Your task to perform on an android device: Clear all items from cart on target.com. Search for apple airpods pro on target.com, select the first entry, add it to the cart, then select checkout. Image 0: 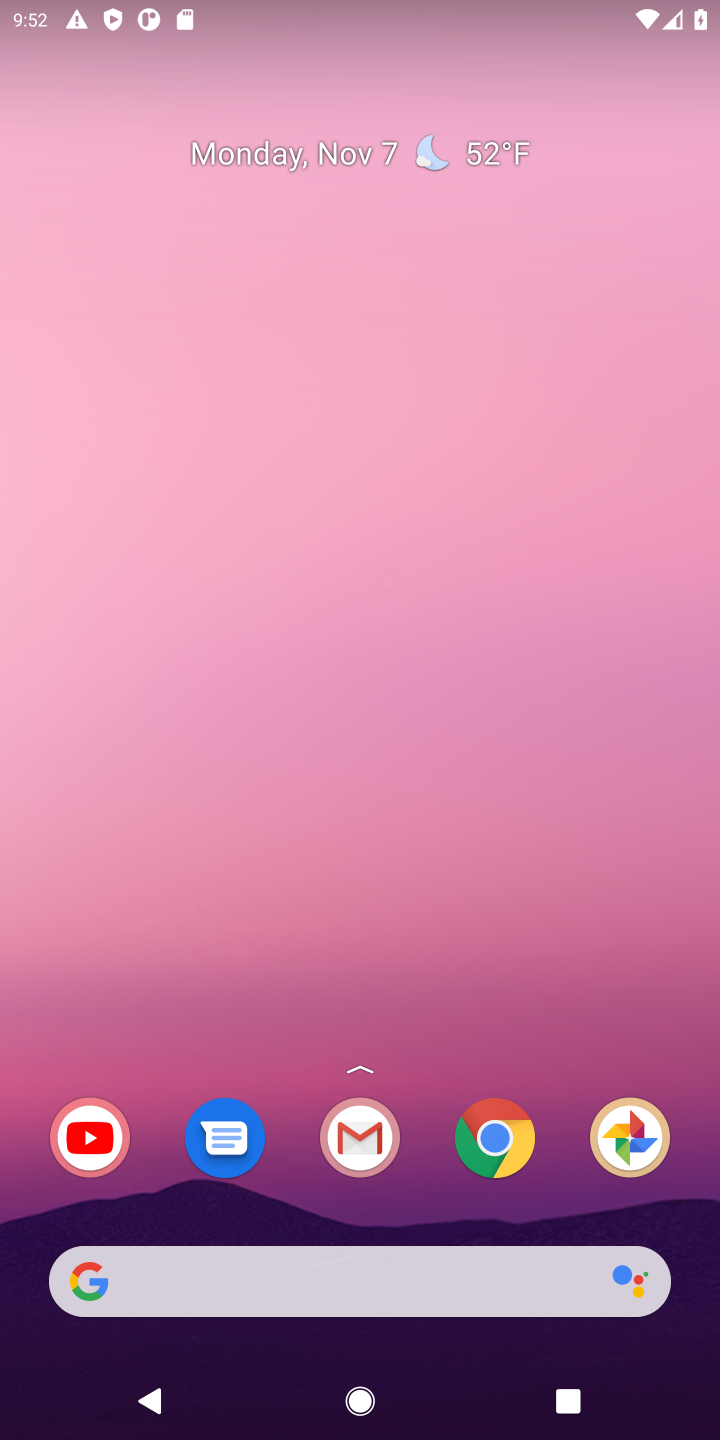
Step 0: click (521, 1133)
Your task to perform on an android device: Clear all items from cart on target.com. Search for apple airpods pro on target.com, select the first entry, add it to the cart, then select checkout. Image 1: 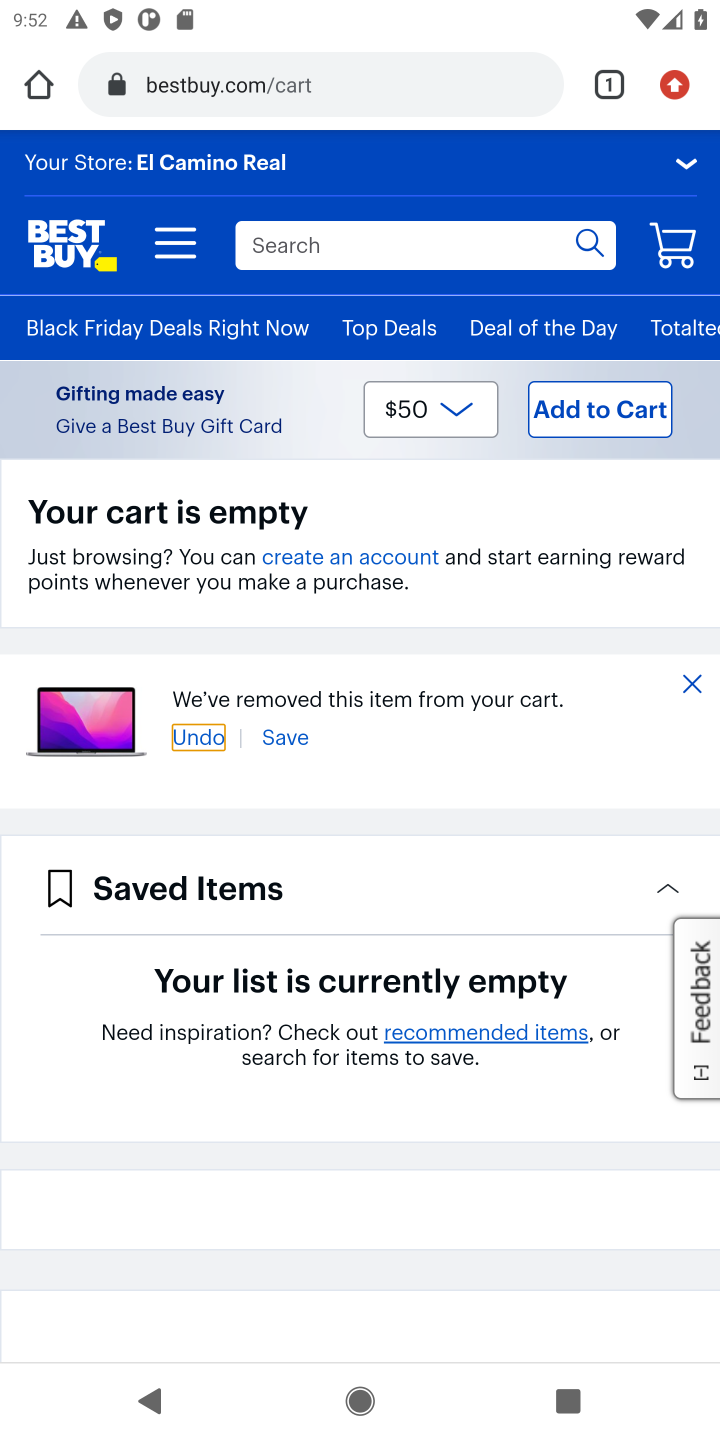
Step 1: click (216, 89)
Your task to perform on an android device: Clear all items from cart on target.com. Search for apple airpods pro on target.com, select the first entry, add it to the cart, then select checkout. Image 2: 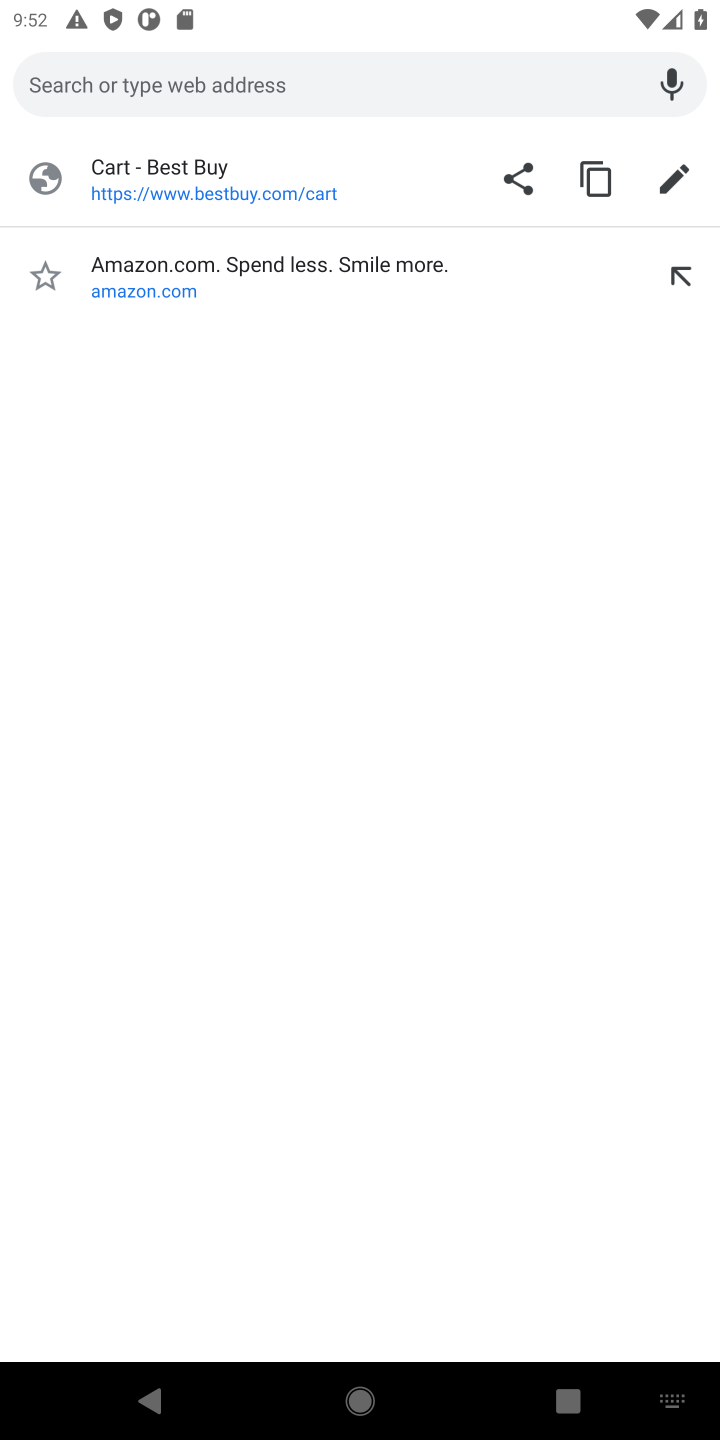
Step 2: type "target"
Your task to perform on an android device: Clear all items from cart on target.com. Search for apple airpods pro on target.com, select the first entry, add it to the cart, then select checkout. Image 3: 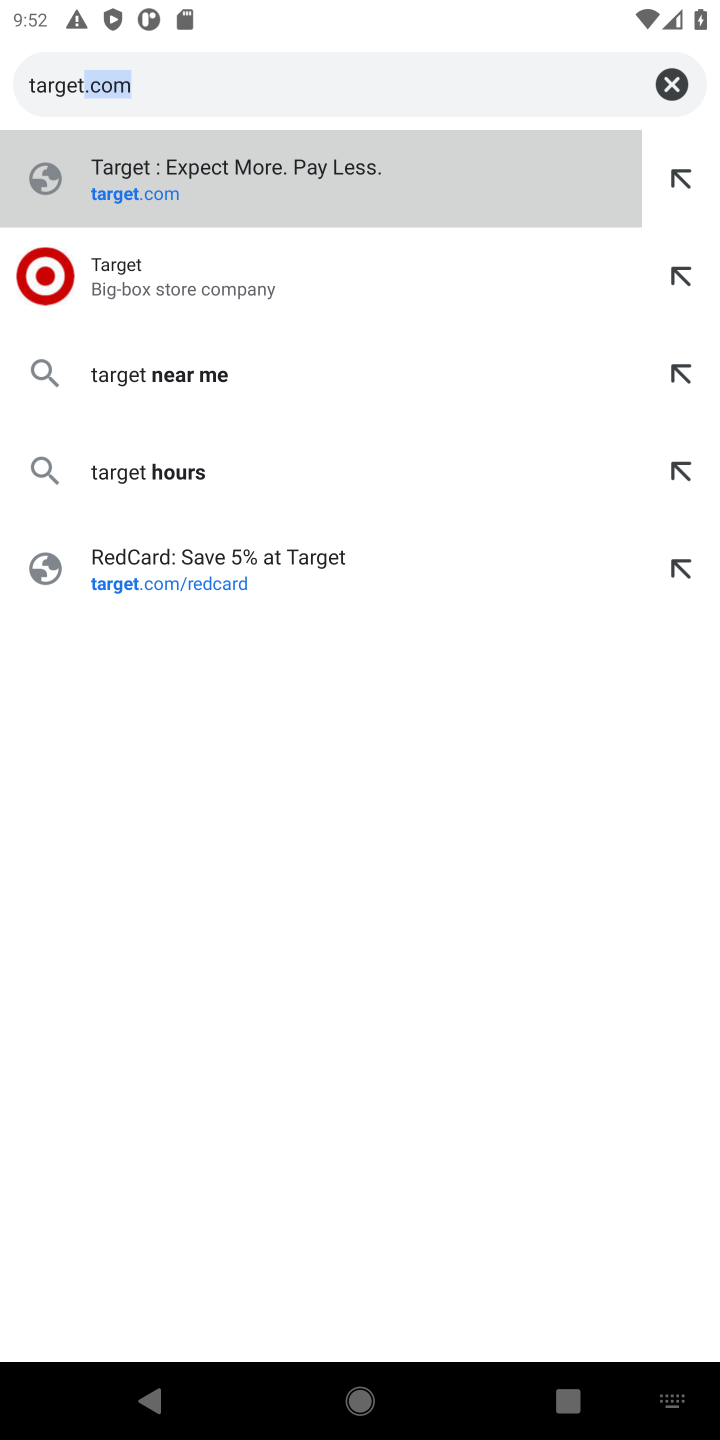
Step 3: click (143, 274)
Your task to perform on an android device: Clear all items from cart on target.com. Search for apple airpods pro on target.com, select the first entry, add it to the cart, then select checkout. Image 4: 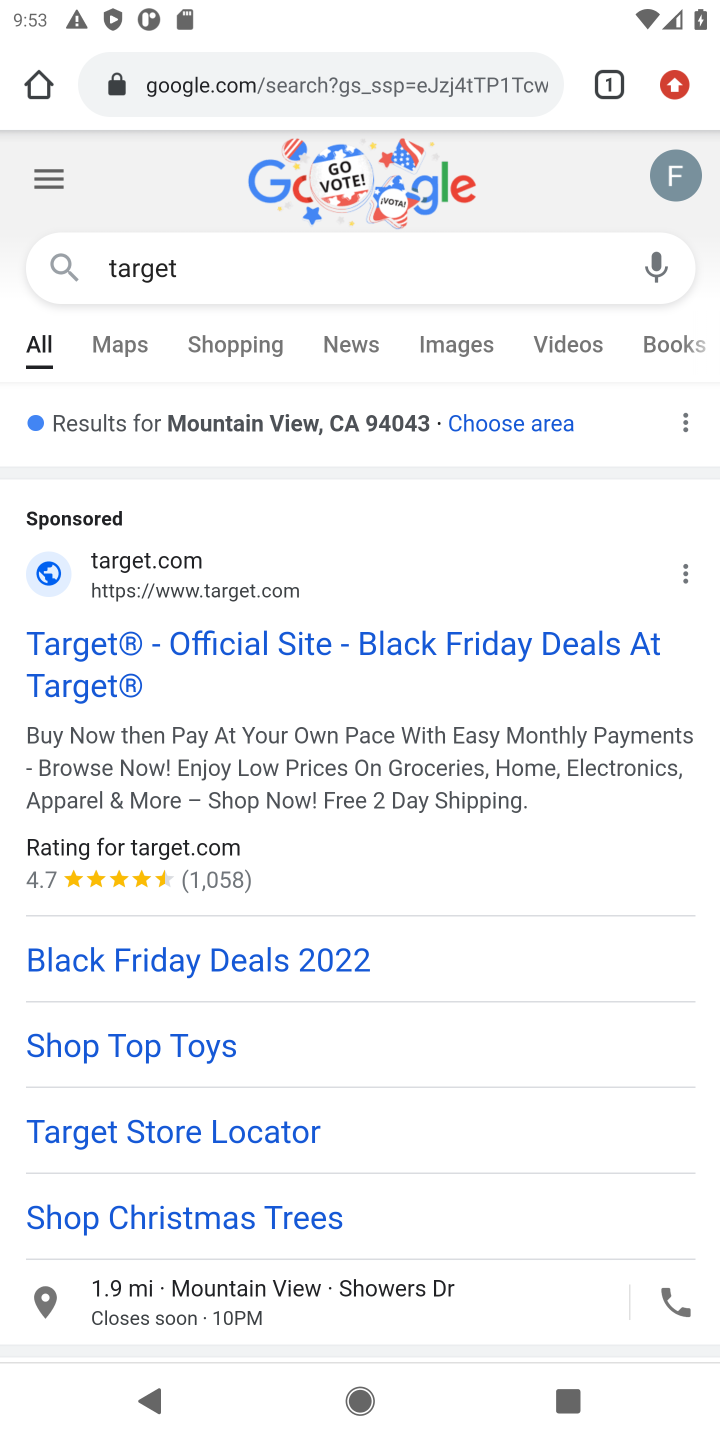
Step 4: drag from (287, 886) to (313, 294)
Your task to perform on an android device: Clear all items from cart on target.com. Search for apple airpods pro on target.com, select the first entry, add it to the cart, then select checkout. Image 5: 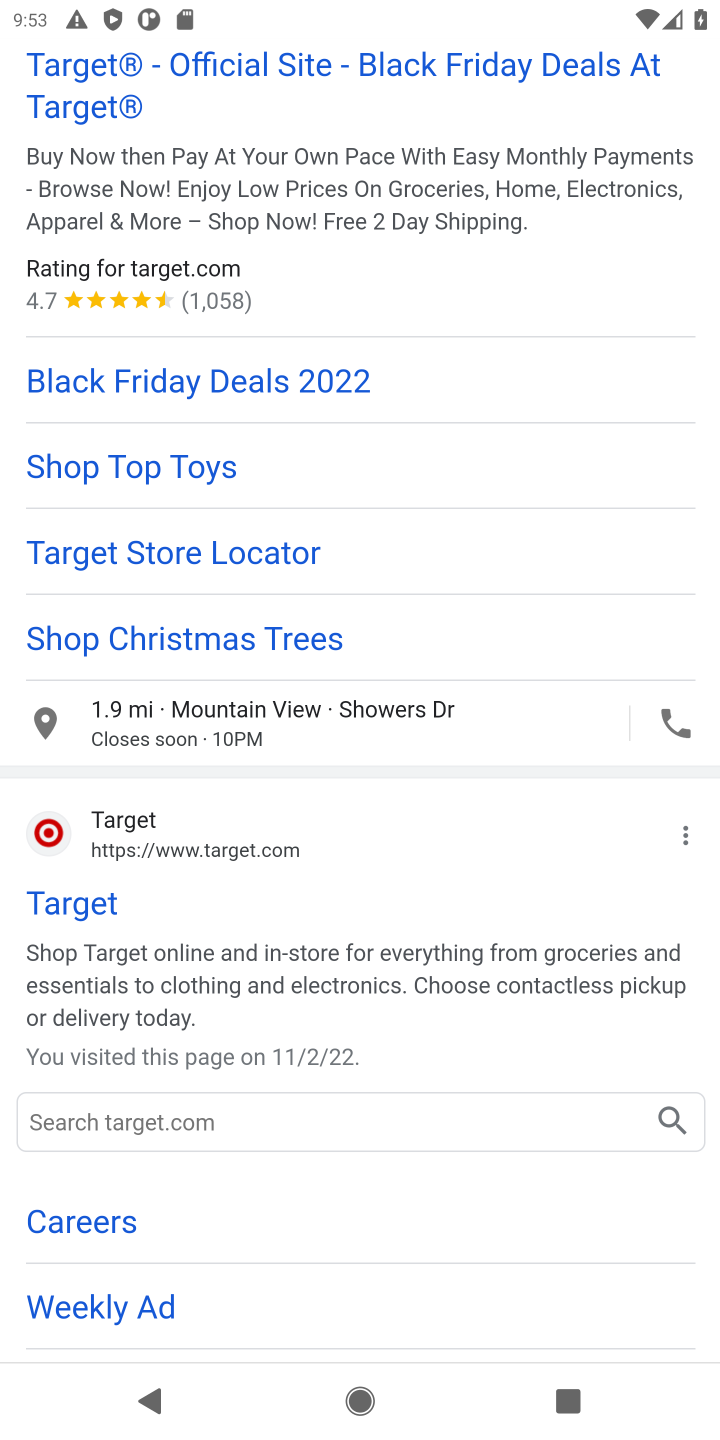
Step 5: drag from (368, 935) to (435, 463)
Your task to perform on an android device: Clear all items from cart on target.com. Search for apple airpods pro on target.com, select the first entry, add it to the cart, then select checkout. Image 6: 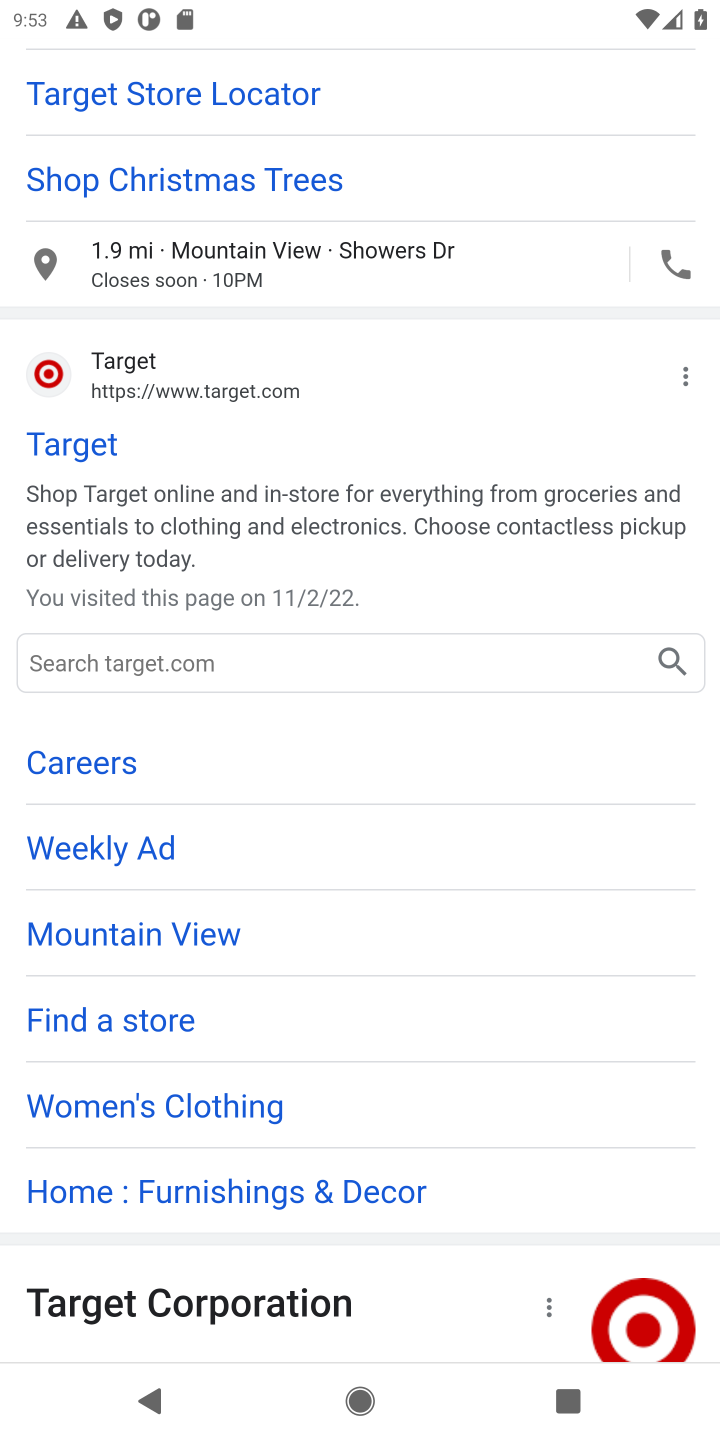
Step 6: click (70, 899)
Your task to perform on an android device: Clear all items from cart on target.com. Search for apple airpods pro on target.com, select the first entry, add it to the cart, then select checkout. Image 7: 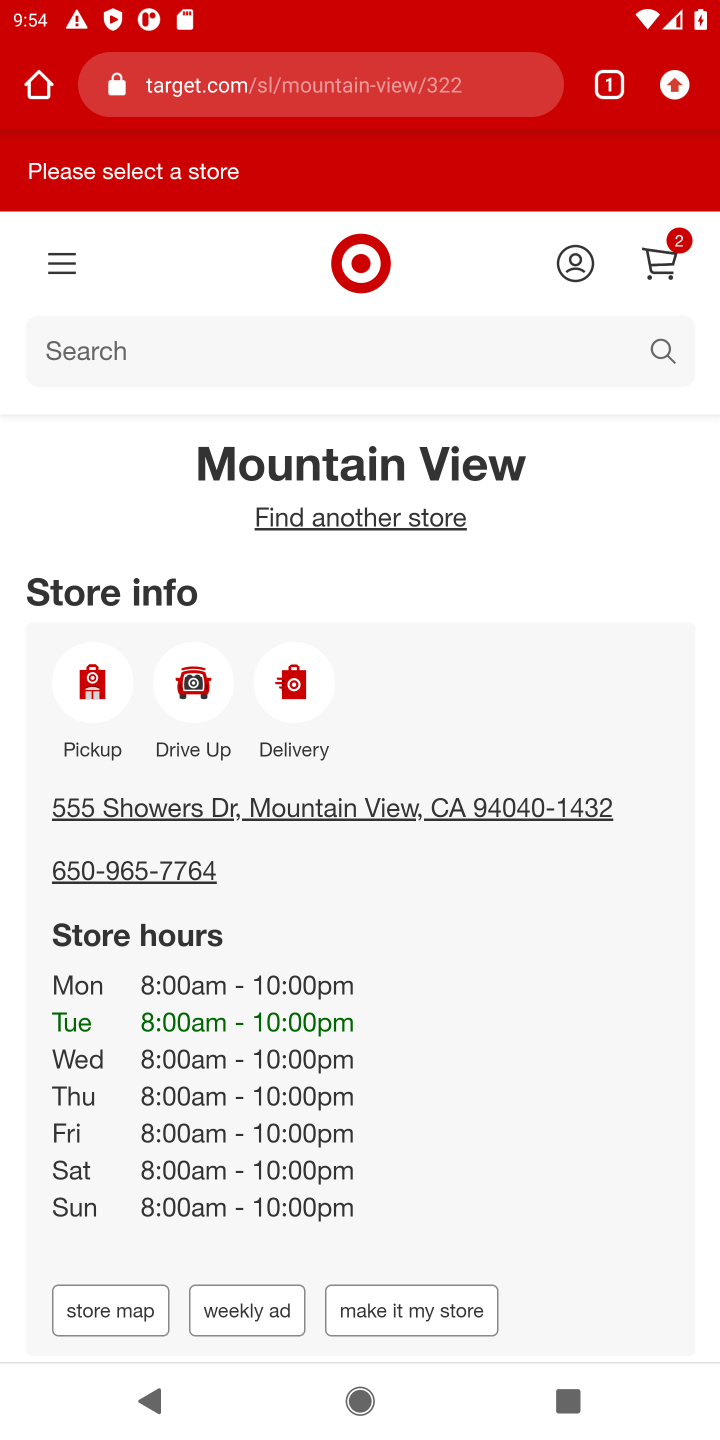
Step 7: click (642, 245)
Your task to perform on an android device: Clear all items from cart on target.com. Search for apple airpods pro on target.com, select the first entry, add it to the cart, then select checkout. Image 8: 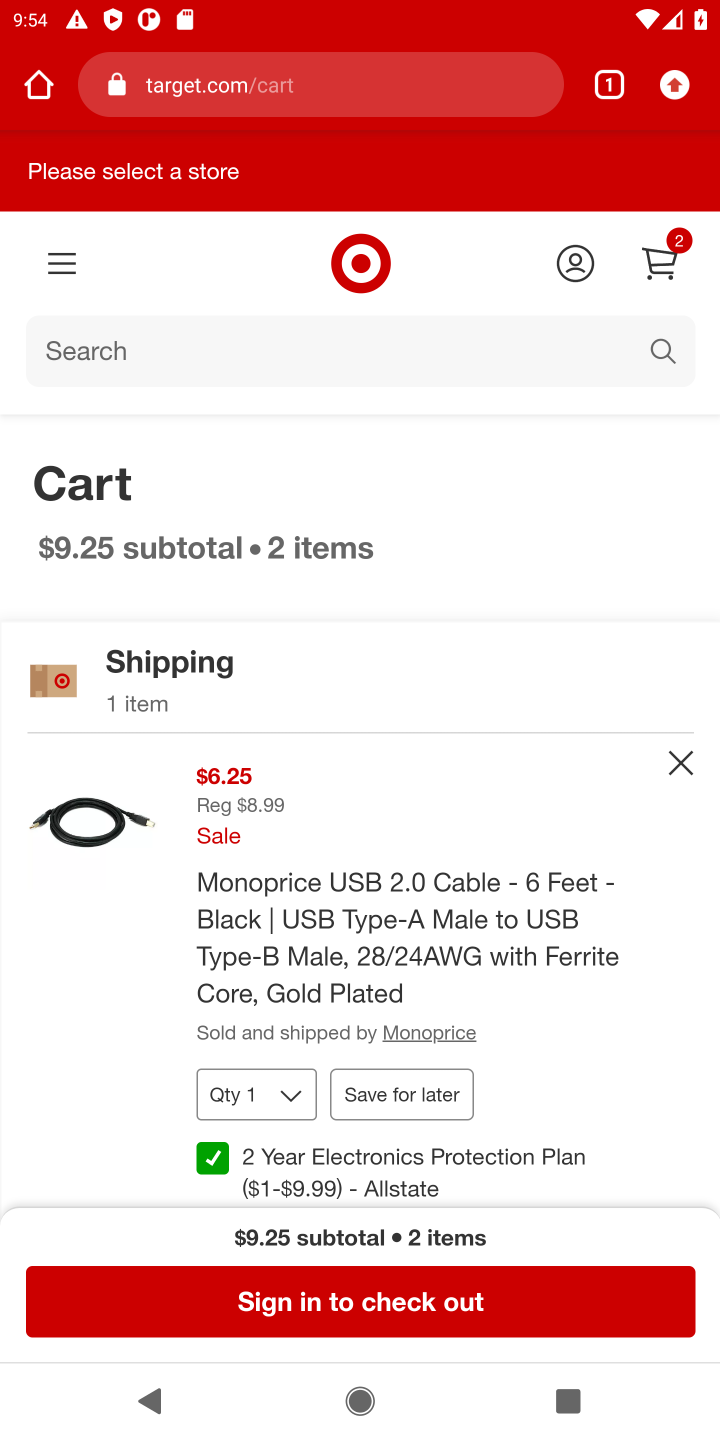
Step 8: drag from (495, 1037) to (503, 569)
Your task to perform on an android device: Clear all items from cart on target.com. Search for apple airpods pro on target.com, select the first entry, add it to the cart, then select checkout. Image 9: 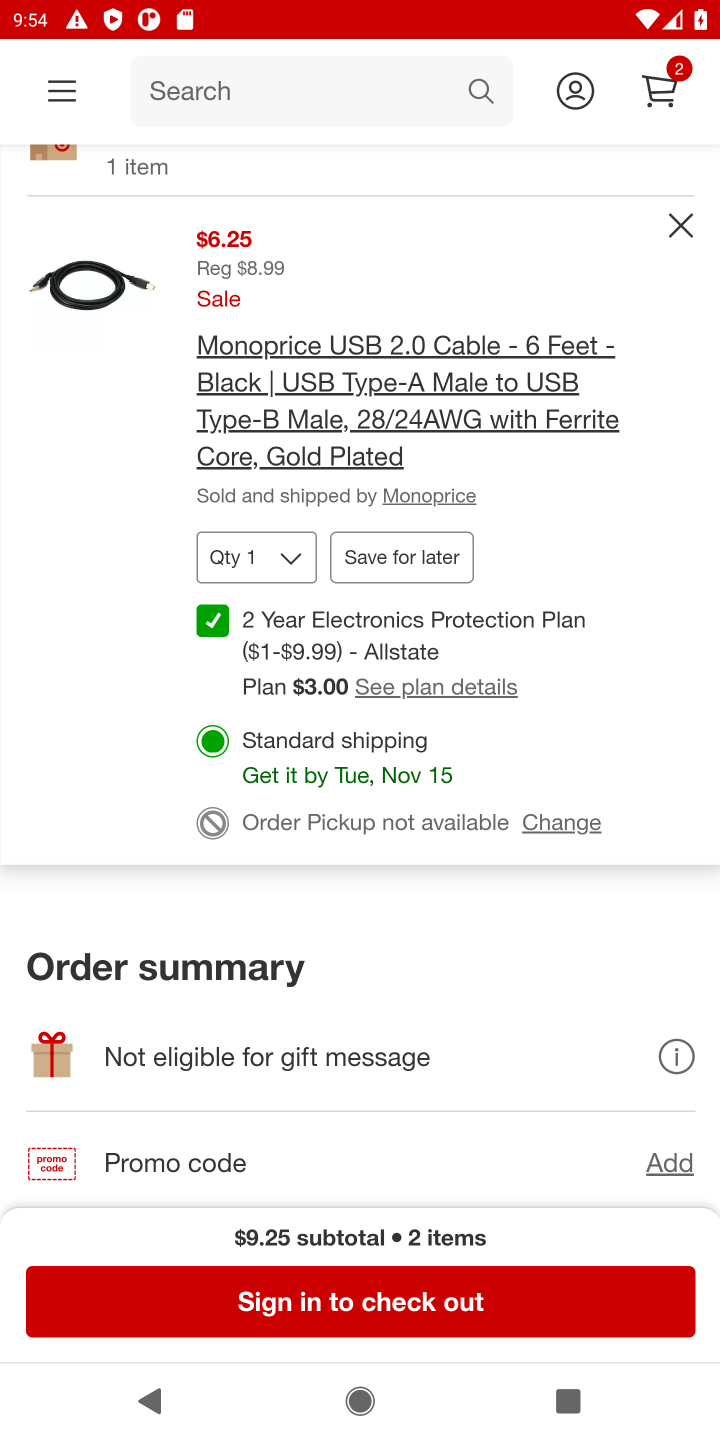
Step 9: drag from (547, 1108) to (549, 697)
Your task to perform on an android device: Clear all items from cart on target.com. Search for apple airpods pro on target.com, select the first entry, add it to the cart, then select checkout. Image 10: 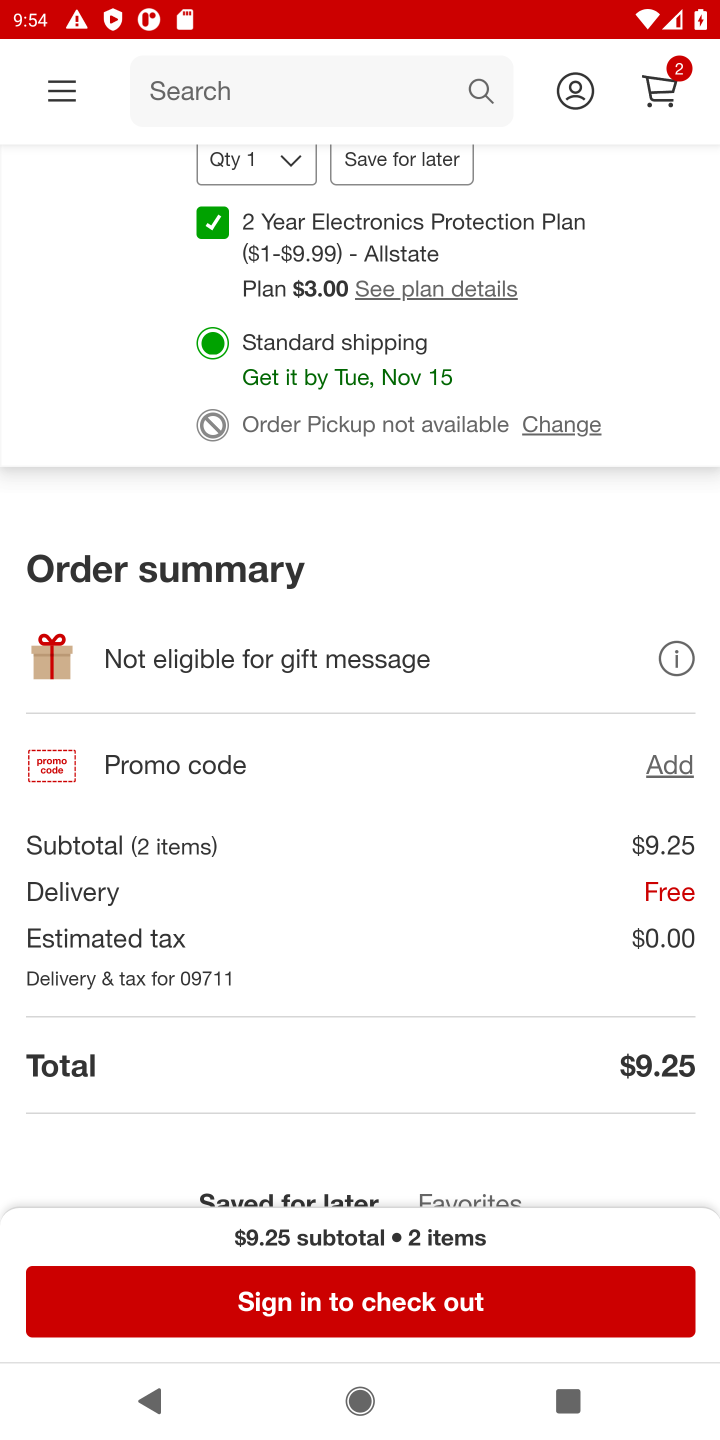
Step 10: drag from (391, 308) to (454, 844)
Your task to perform on an android device: Clear all items from cart on target.com. Search for apple airpods pro on target.com, select the first entry, add it to the cart, then select checkout. Image 11: 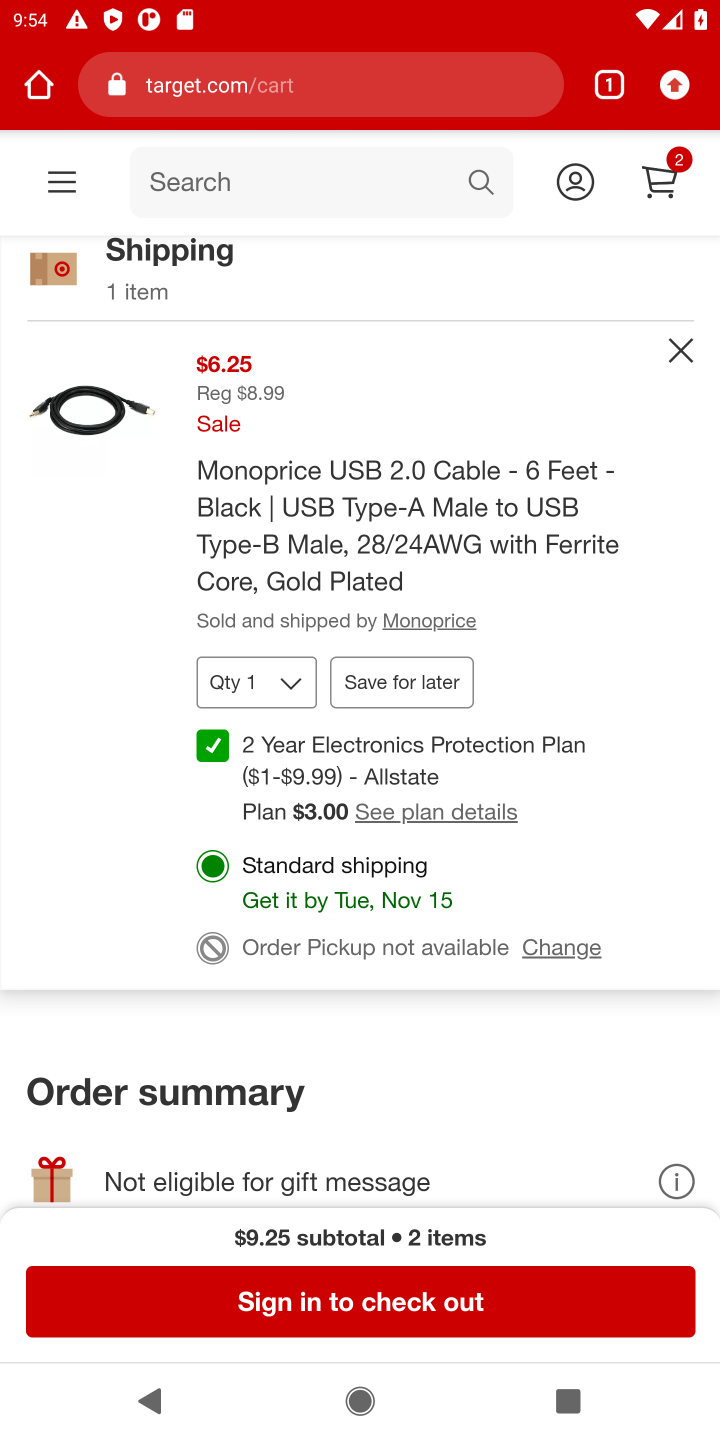
Step 11: click (678, 342)
Your task to perform on an android device: Clear all items from cart on target.com. Search for apple airpods pro on target.com, select the first entry, add it to the cart, then select checkout. Image 12: 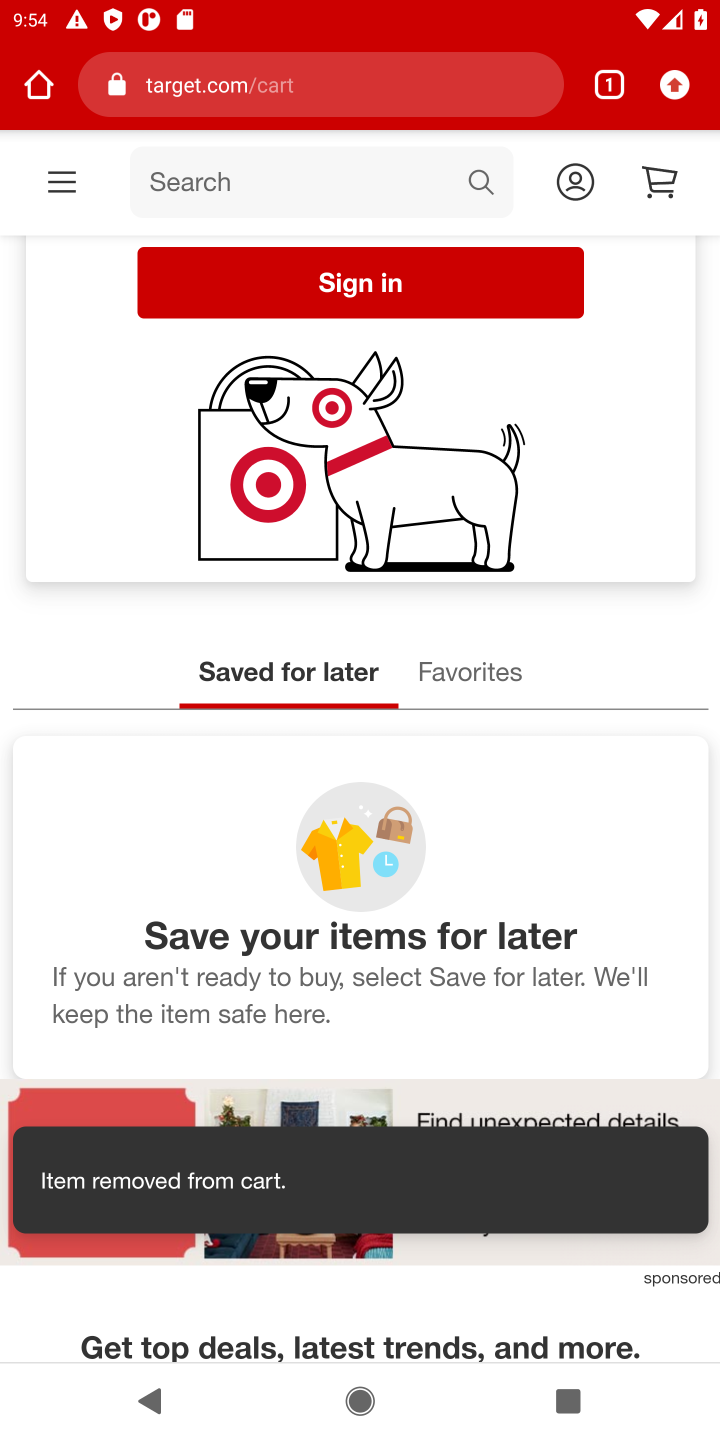
Step 12: drag from (430, 432) to (487, 1095)
Your task to perform on an android device: Clear all items from cart on target.com. Search for apple airpods pro on target.com, select the first entry, add it to the cart, then select checkout. Image 13: 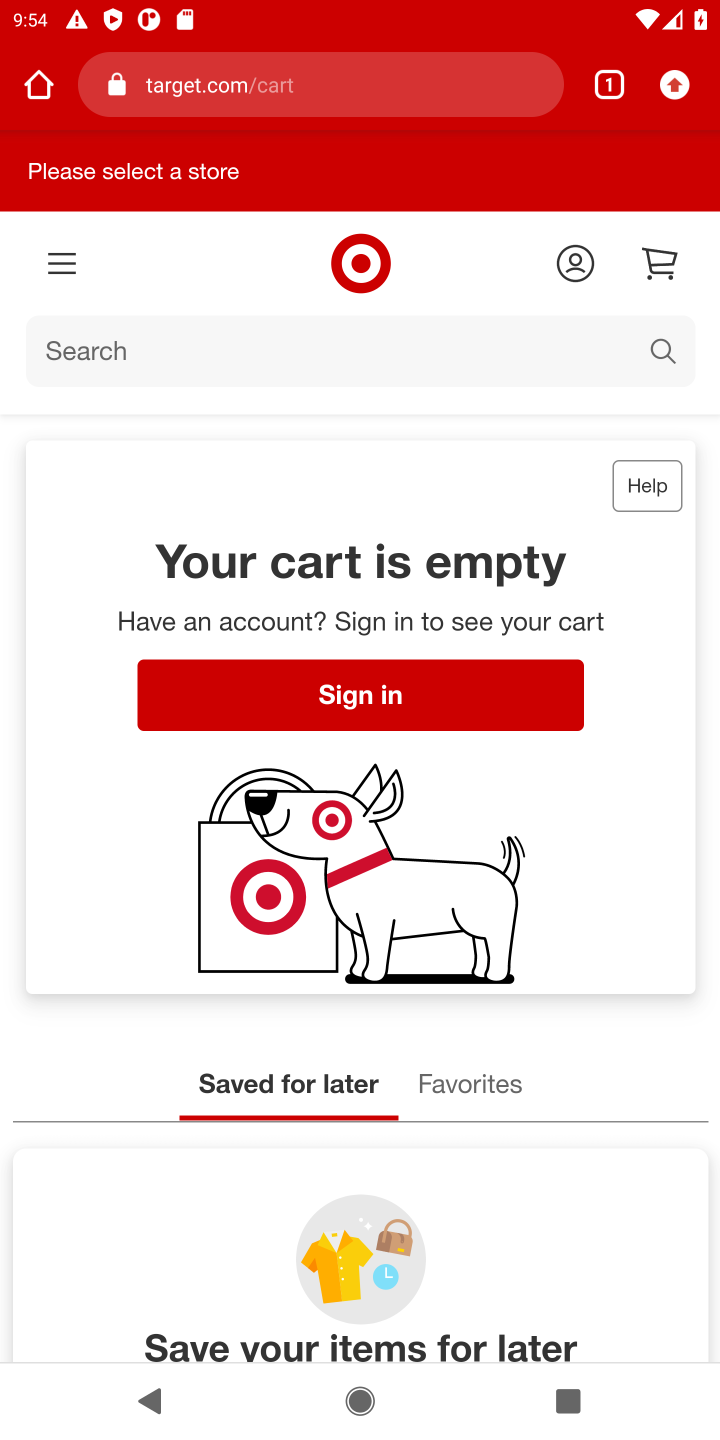
Step 13: click (647, 351)
Your task to perform on an android device: Clear all items from cart on target.com. Search for apple airpods pro on target.com, select the first entry, add it to the cart, then select checkout. Image 14: 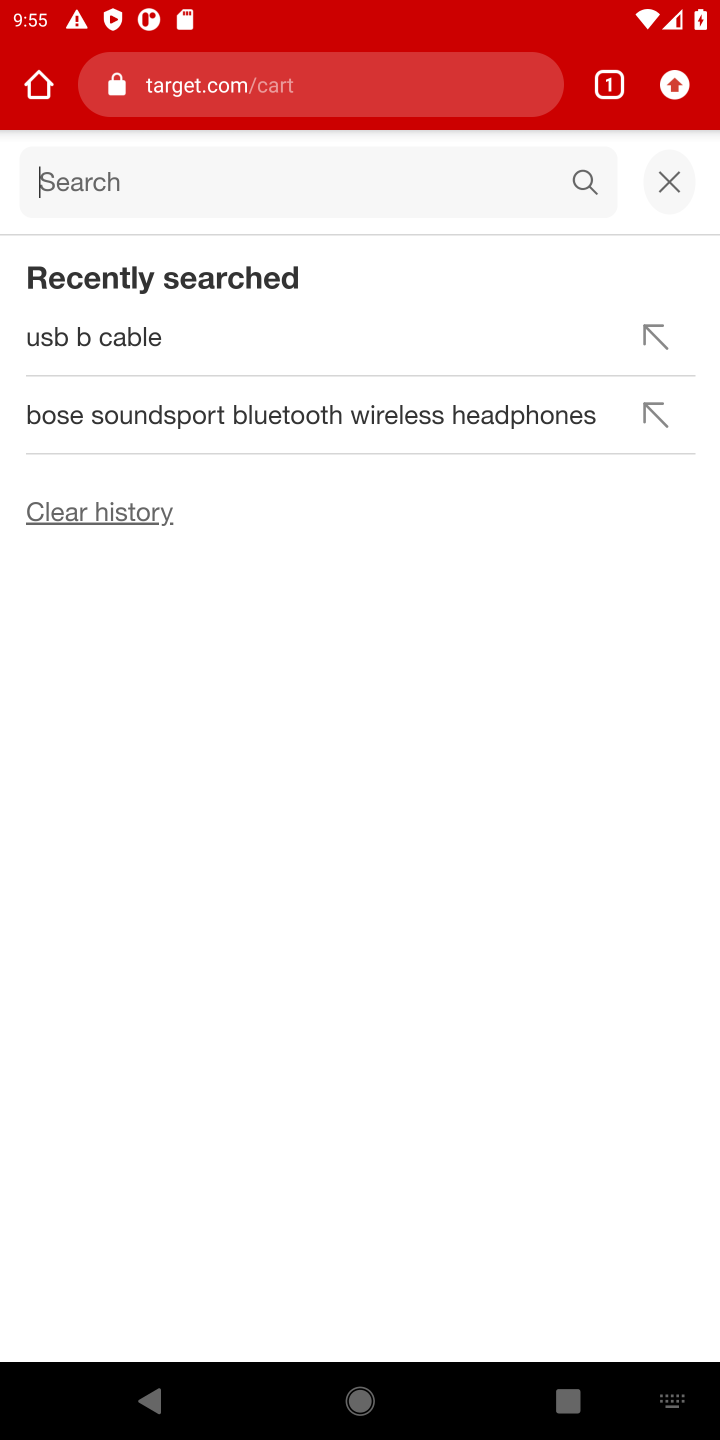
Step 14: type "aple airpods"
Your task to perform on an android device: Clear all items from cart on target.com. Search for apple airpods pro on target.com, select the first entry, add it to the cart, then select checkout. Image 15: 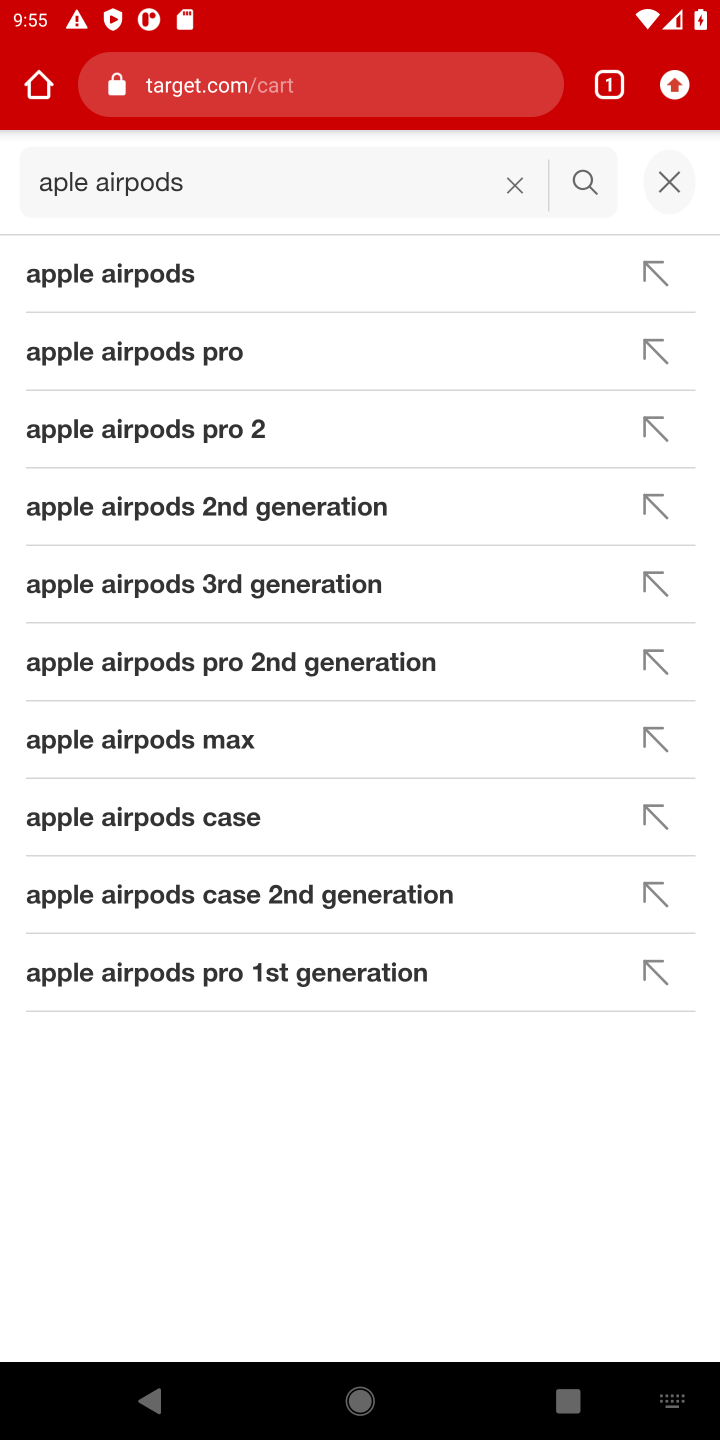
Step 15: click (58, 273)
Your task to perform on an android device: Clear all items from cart on target.com. Search for apple airpods pro on target.com, select the first entry, add it to the cart, then select checkout. Image 16: 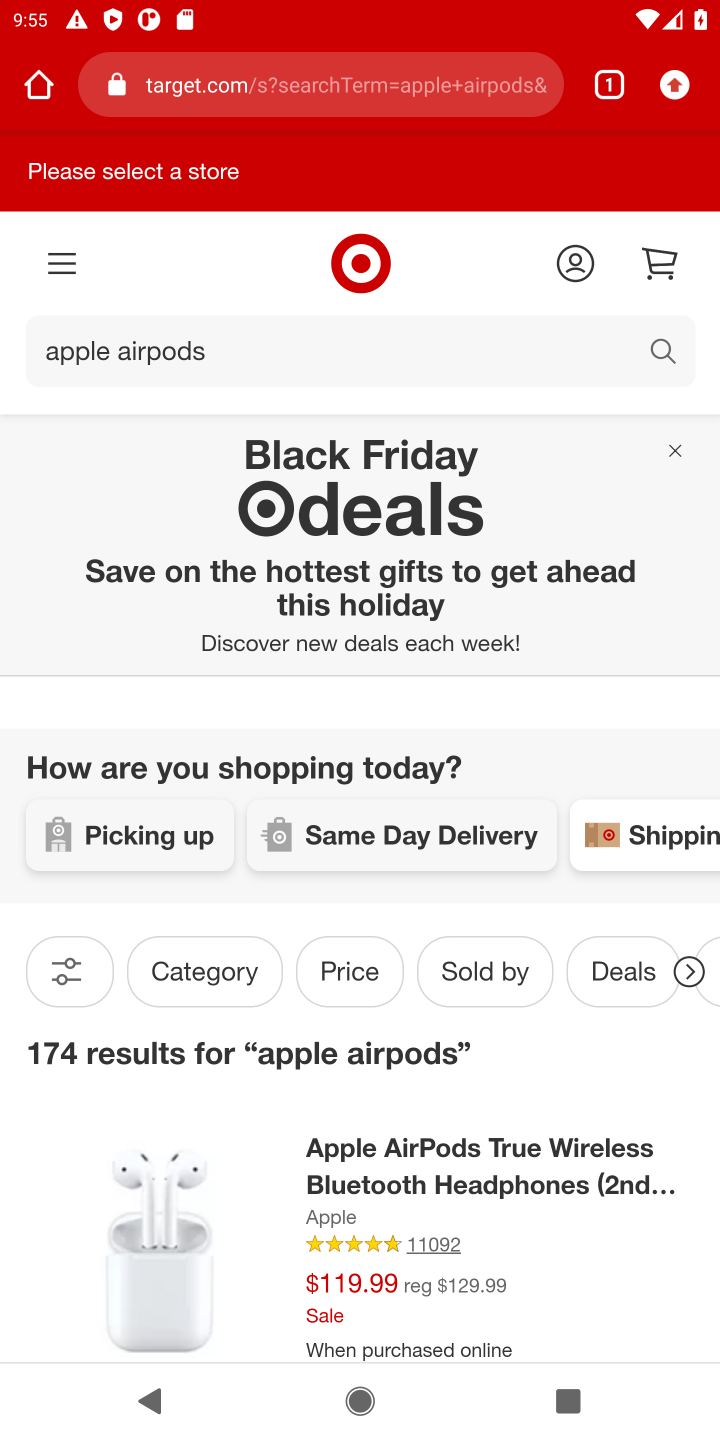
Step 16: click (360, 1155)
Your task to perform on an android device: Clear all items from cart on target.com. Search for apple airpods pro on target.com, select the first entry, add it to the cart, then select checkout. Image 17: 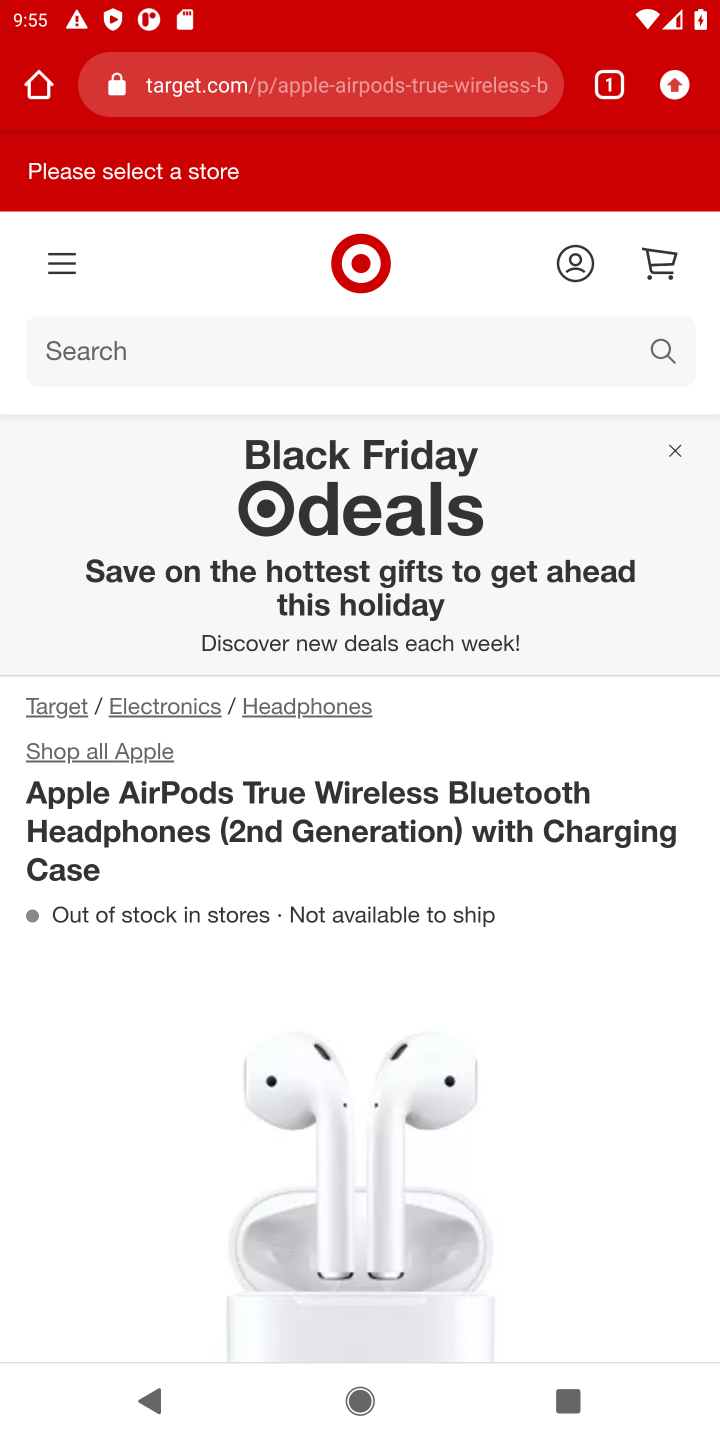
Step 17: drag from (373, 1114) to (478, 342)
Your task to perform on an android device: Clear all items from cart on target.com. Search for apple airpods pro on target.com, select the first entry, add it to the cart, then select checkout. Image 18: 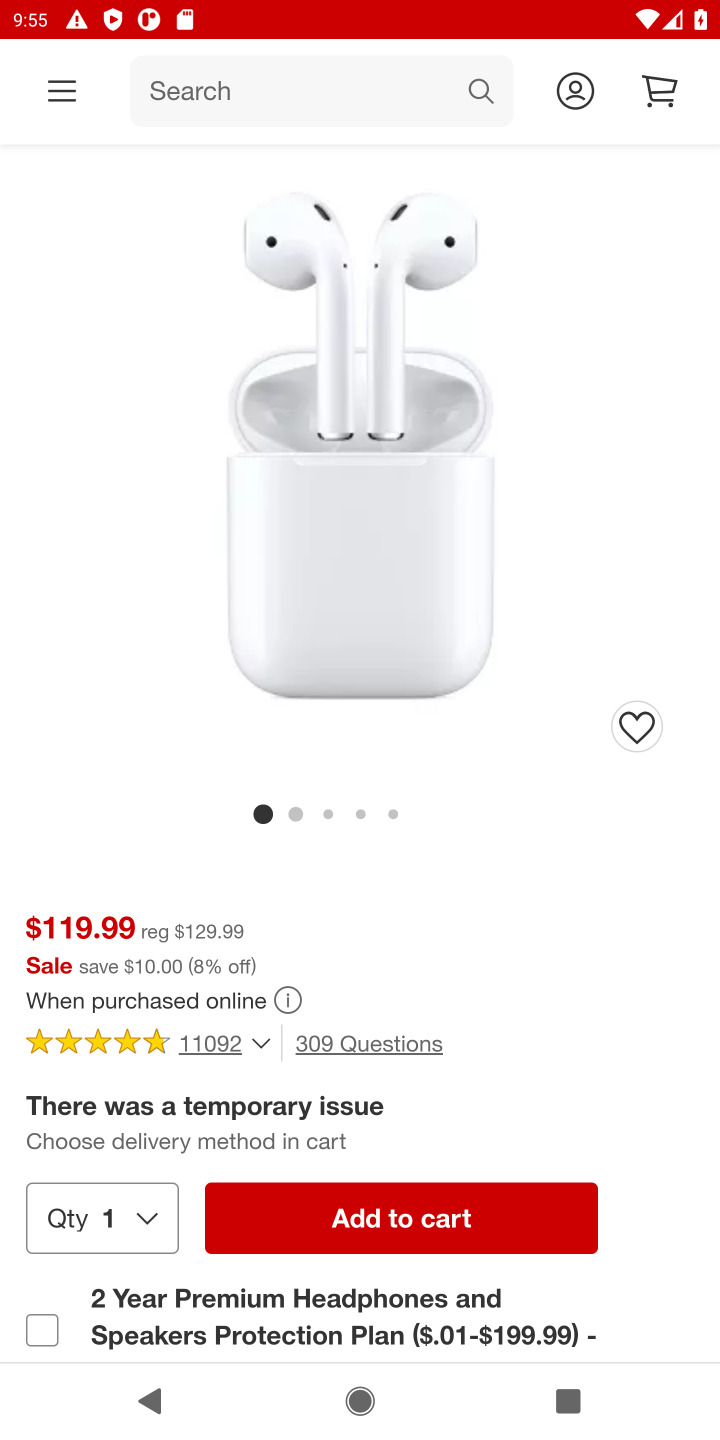
Step 18: click (386, 1226)
Your task to perform on an android device: Clear all items from cart on target.com. Search for apple airpods pro on target.com, select the first entry, add it to the cart, then select checkout. Image 19: 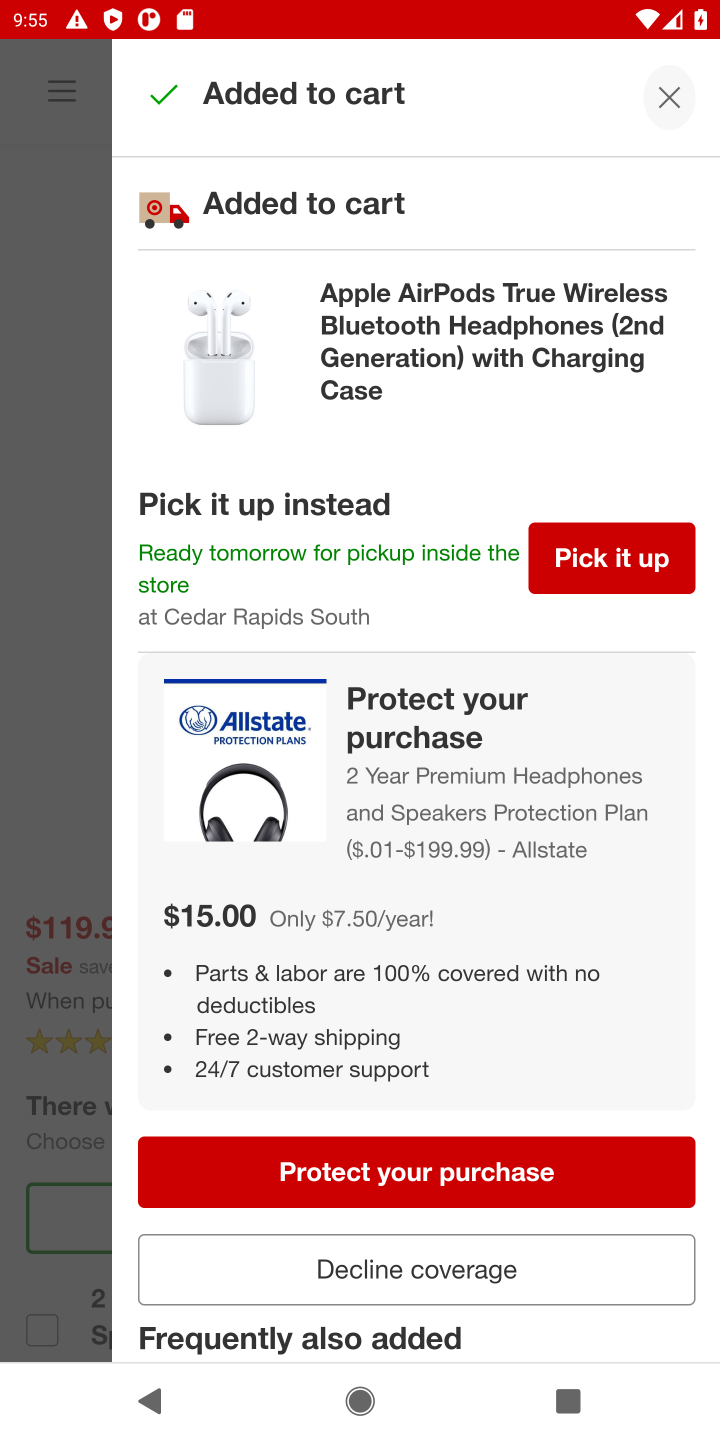
Step 19: click (418, 1167)
Your task to perform on an android device: Clear all items from cart on target.com. Search for apple airpods pro on target.com, select the first entry, add it to the cart, then select checkout. Image 20: 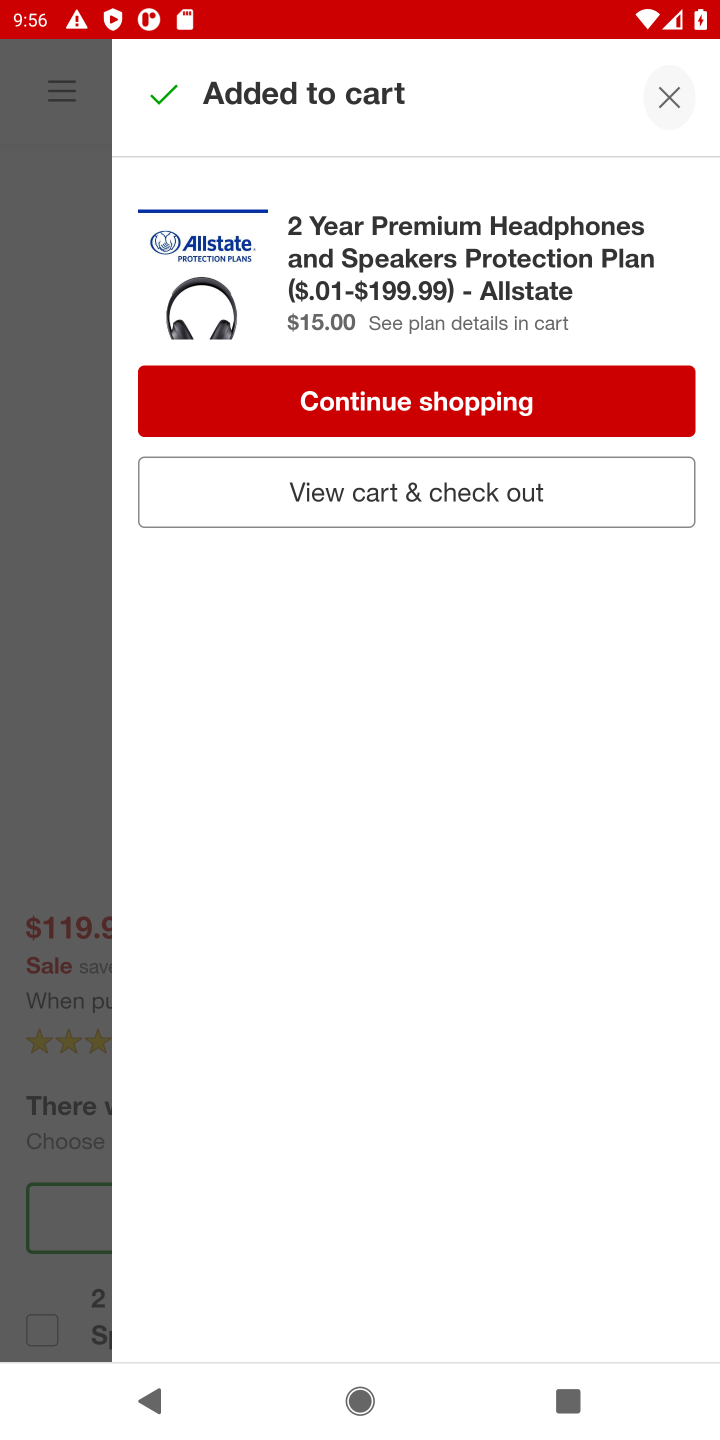
Step 20: click (357, 505)
Your task to perform on an android device: Clear all items from cart on target.com. Search for apple airpods pro on target.com, select the first entry, add it to the cart, then select checkout. Image 21: 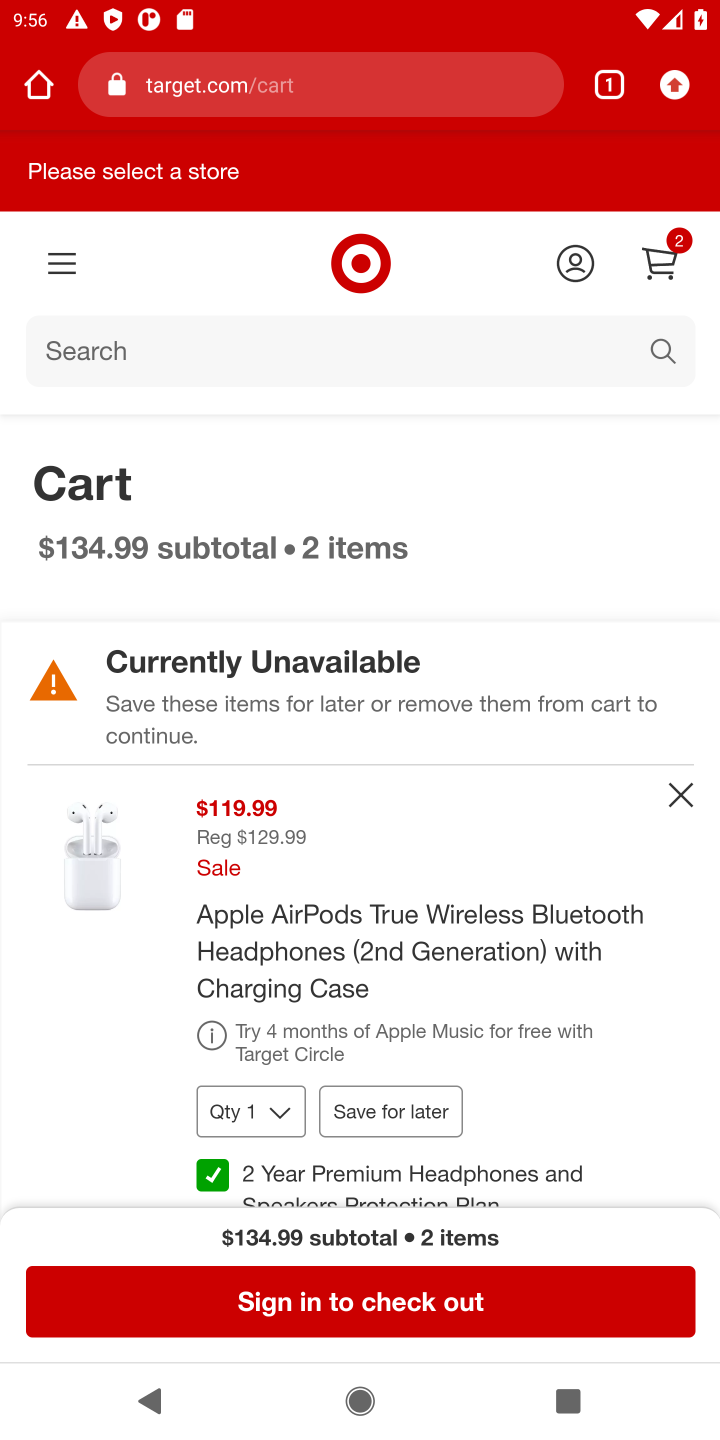
Step 21: click (581, 1294)
Your task to perform on an android device: Clear all items from cart on target.com. Search for apple airpods pro on target.com, select the first entry, add it to the cart, then select checkout. Image 22: 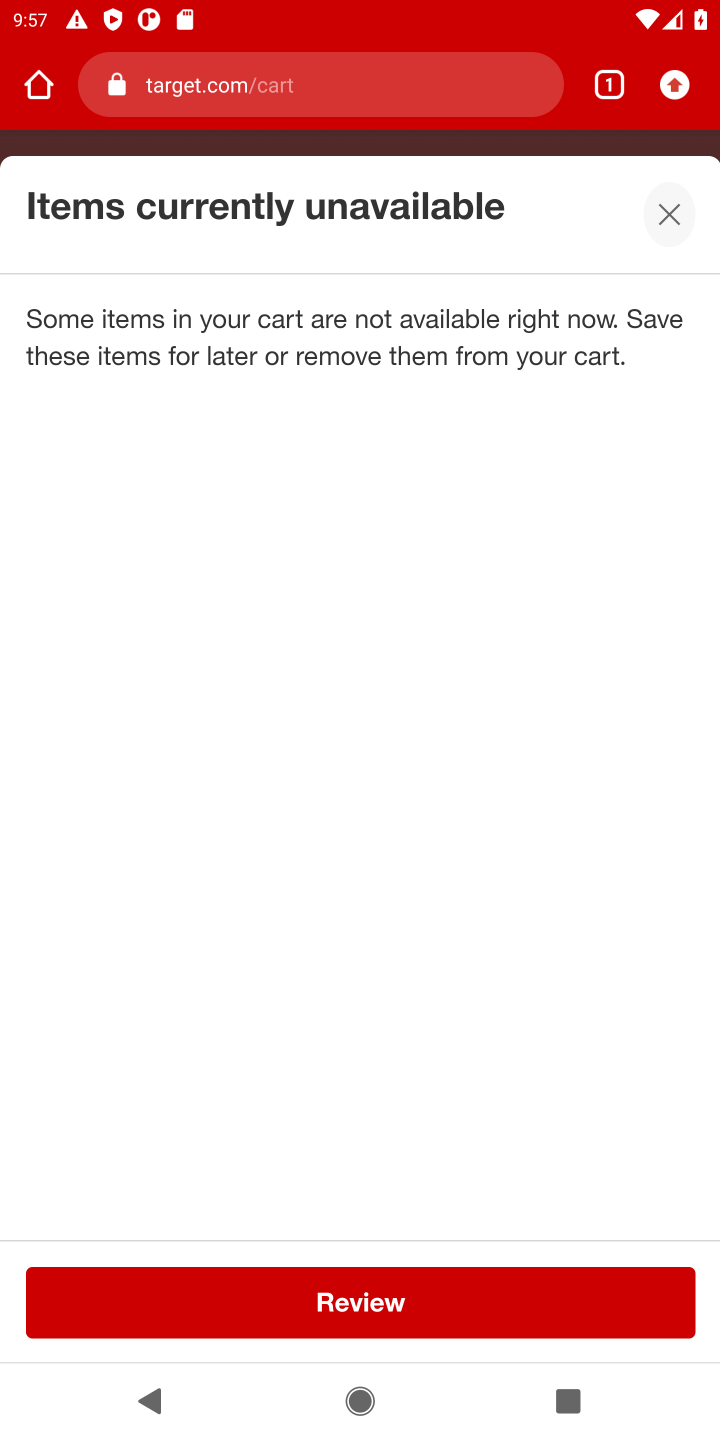
Step 22: click (661, 217)
Your task to perform on an android device: Clear all items from cart on target.com. Search for apple airpods pro on target.com, select the first entry, add it to the cart, then select checkout. Image 23: 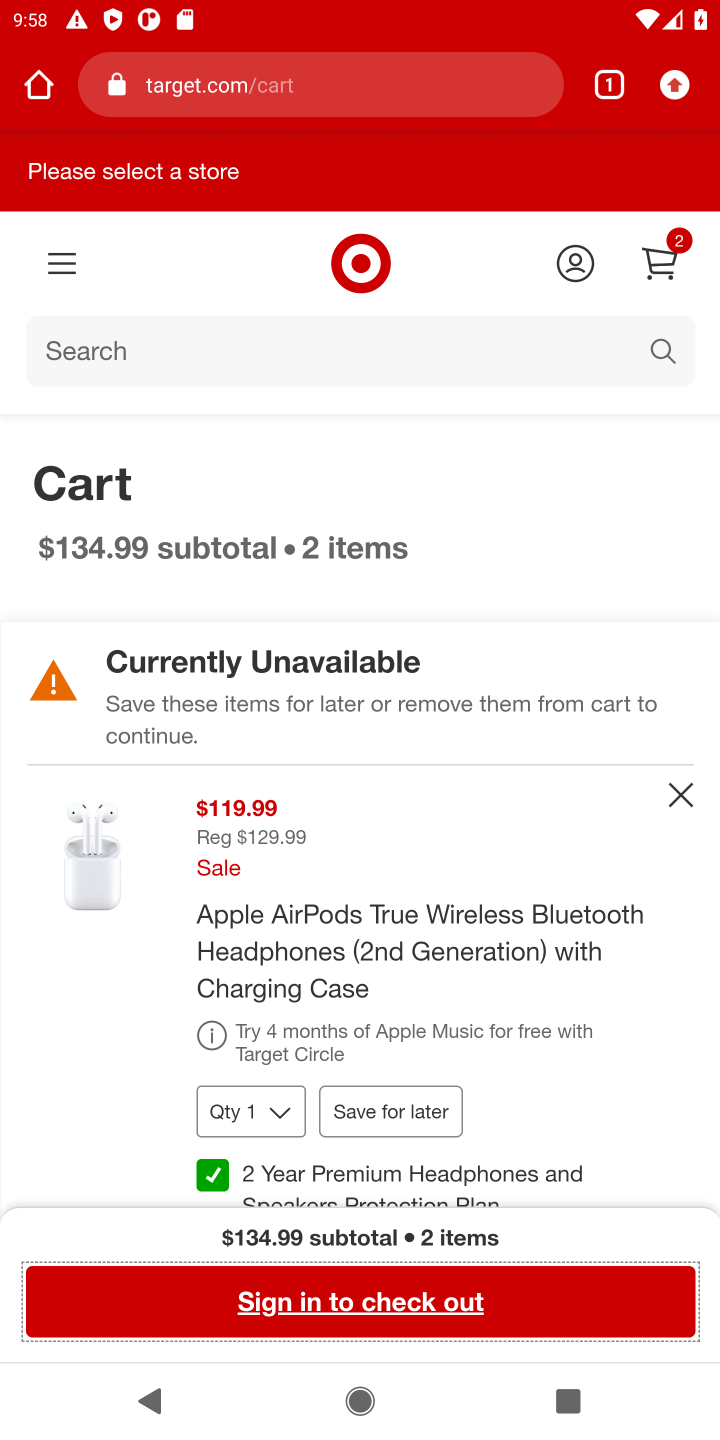
Step 23: click (390, 1307)
Your task to perform on an android device: Clear all items from cart on target.com. Search for apple airpods pro on target.com, select the first entry, add it to the cart, then select checkout. Image 24: 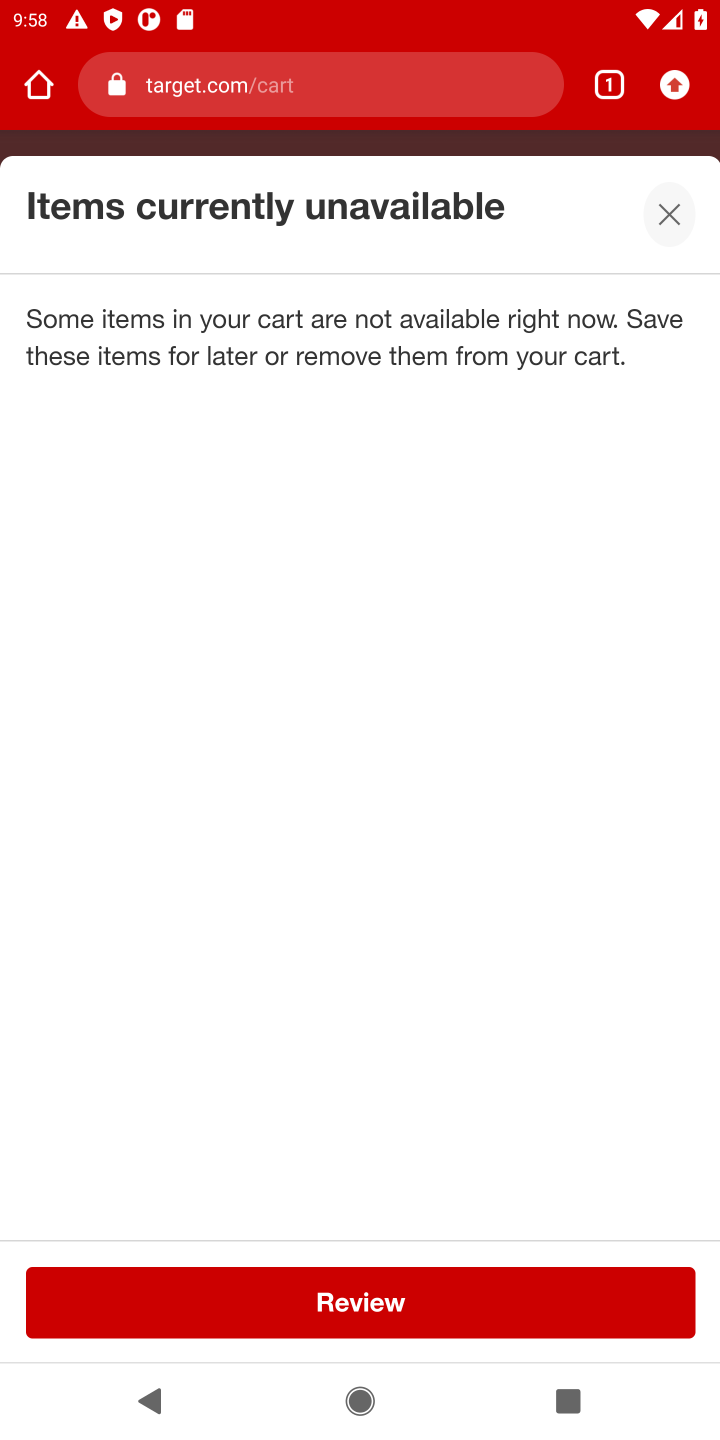
Step 24: task complete